Your task to perform on an android device: Go to eBay Image 0: 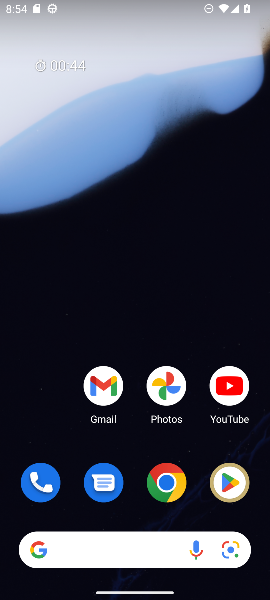
Step 0: press home button
Your task to perform on an android device: Go to eBay Image 1: 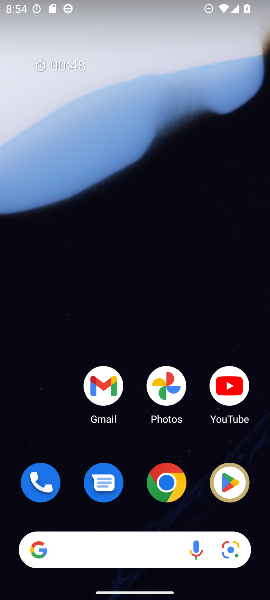
Step 1: click (163, 484)
Your task to perform on an android device: Go to eBay Image 2: 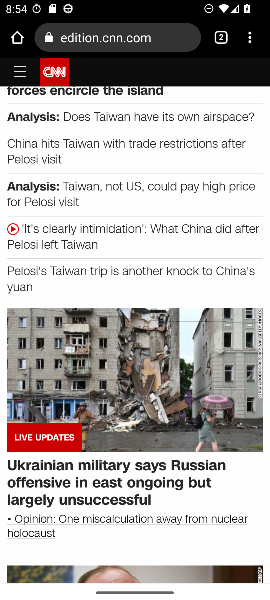
Step 2: click (221, 34)
Your task to perform on an android device: Go to eBay Image 3: 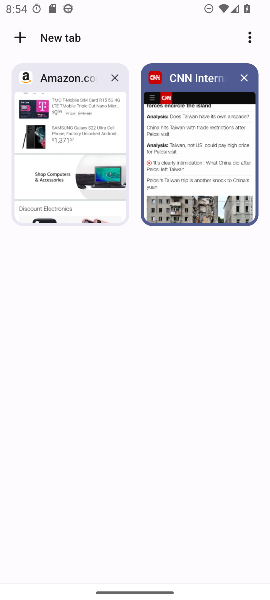
Step 3: click (22, 38)
Your task to perform on an android device: Go to eBay Image 4: 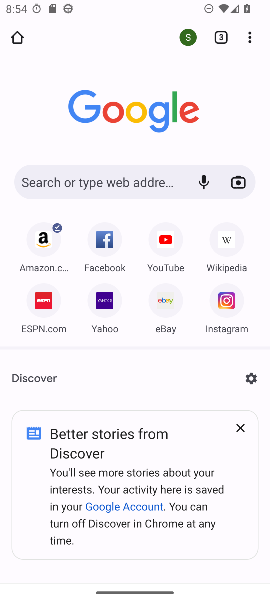
Step 4: click (167, 305)
Your task to perform on an android device: Go to eBay Image 5: 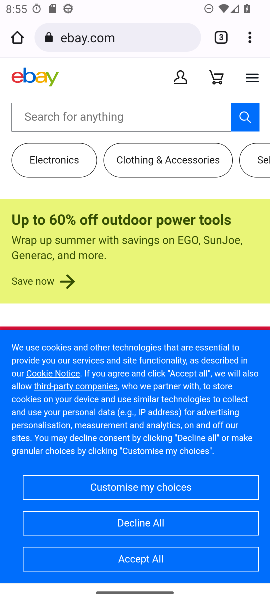
Step 5: click (150, 560)
Your task to perform on an android device: Go to eBay Image 6: 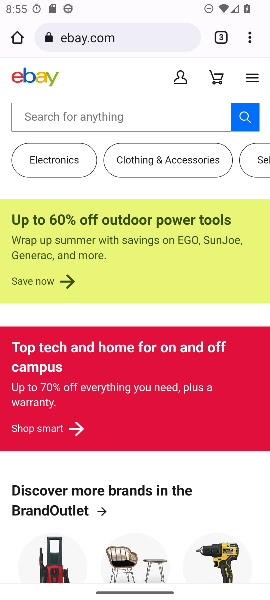
Step 6: task complete